Your task to perform on an android device: turn on the 24-hour format for clock Image 0: 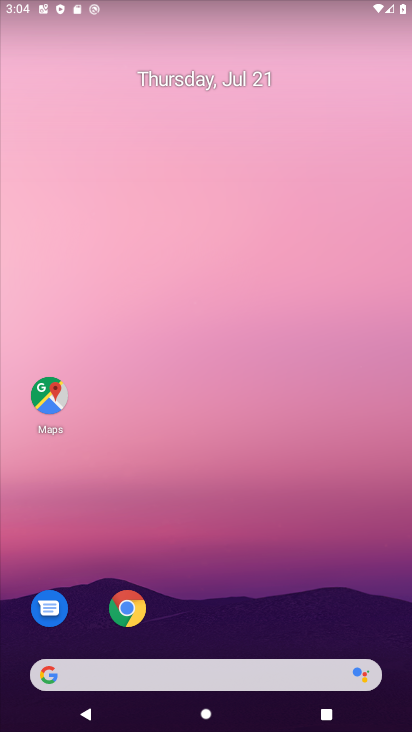
Step 0: drag from (313, 651) to (367, 113)
Your task to perform on an android device: turn on the 24-hour format for clock Image 1: 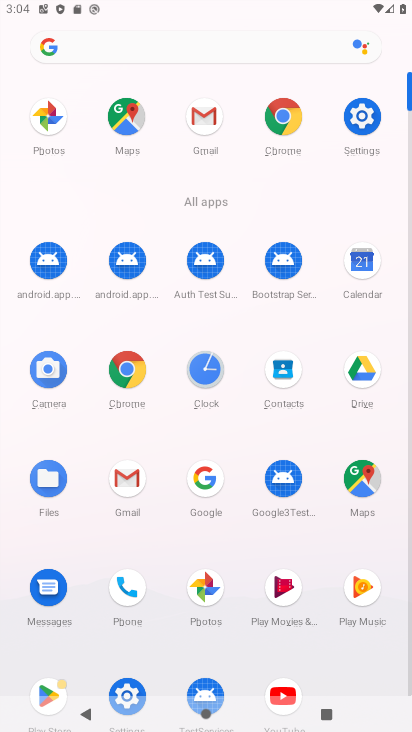
Step 1: click (187, 357)
Your task to perform on an android device: turn on the 24-hour format for clock Image 2: 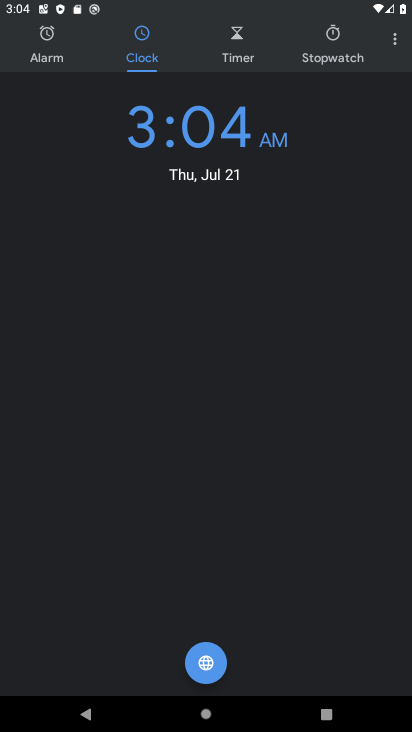
Step 2: drag from (389, 43) to (350, 98)
Your task to perform on an android device: turn on the 24-hour format for clock Image 3: 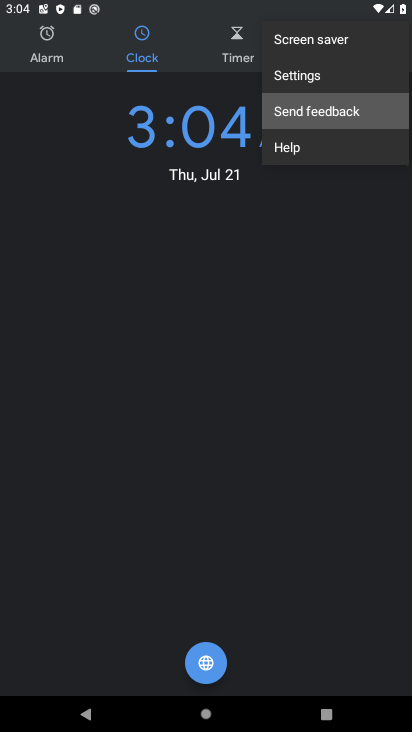
Step 3: click (349, 92)
Your task to perform on an android device: turn on the 24-hour format for clock Image 4: 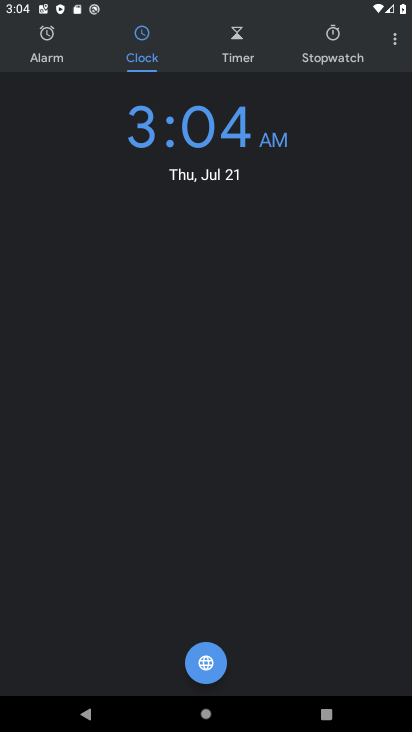
Step 4: click (349, 92)
Your task to perform on an android device: turn on the 24-hour format for clock Image 5: 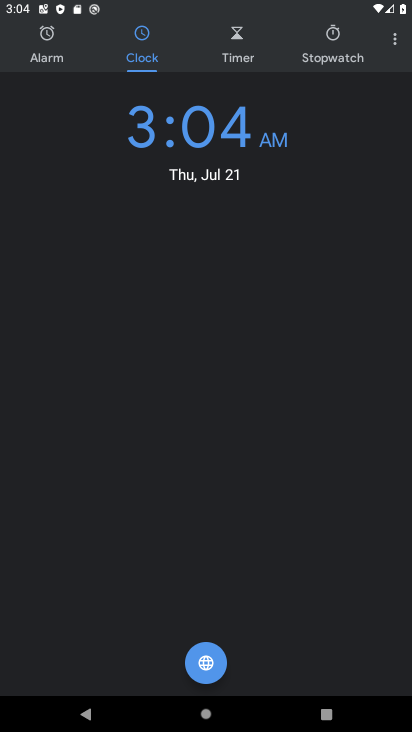
Step 5: click (396, 47)
Your task to perform on an android device: turn on the 24-hour format for clock Image 6: 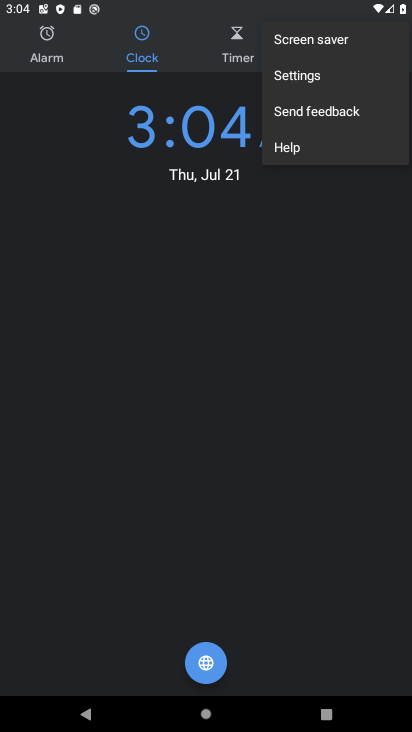
Step 6: click (315, 83)
Your task to perform on an android device: turn on the 24-hour format for clock Image 7: 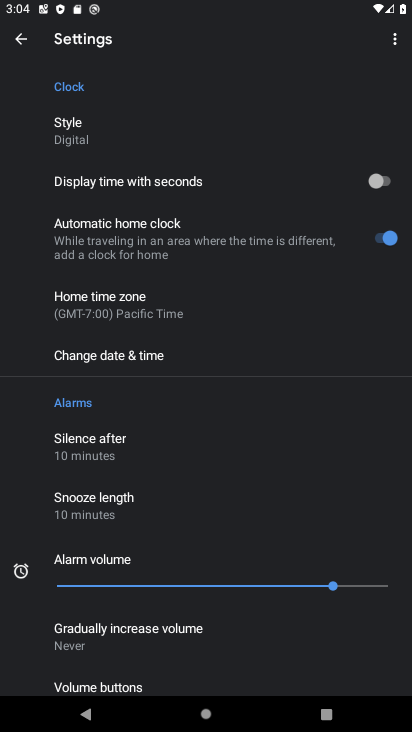
Step 7: click (159, 371)
Your task to perform on an android device: turn on the 24-hour format for clock Image 8: 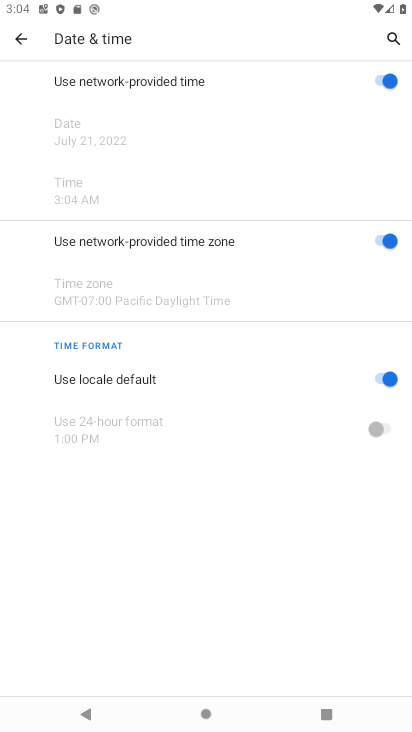
Step 8: click (383, 379)
Your task to perform on an android device: turn on the 24-hour format for clock Image 9: 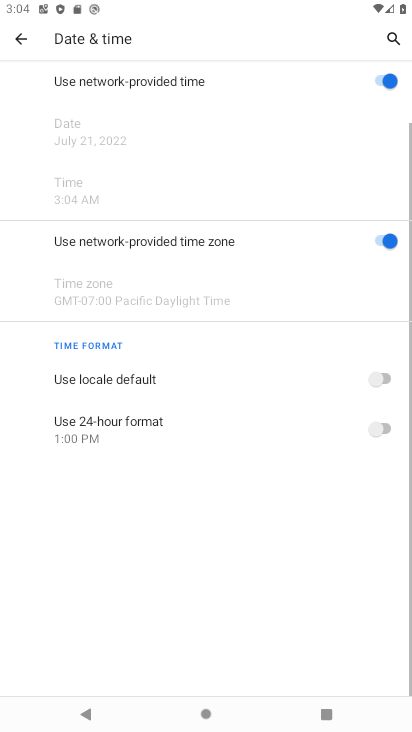
Step 9: click (389, 424)
Your task to perform on an android device: turn on the 24-hour format for clock Image 10: 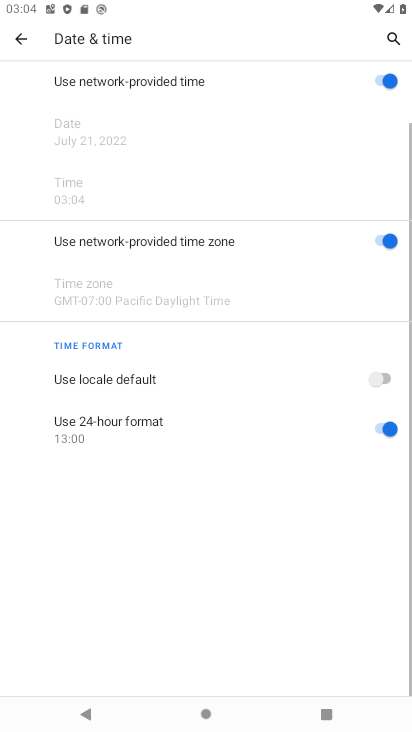
Step 10: task complete